Your task to perform on an android device: toggle improve location accuracy Image 0: 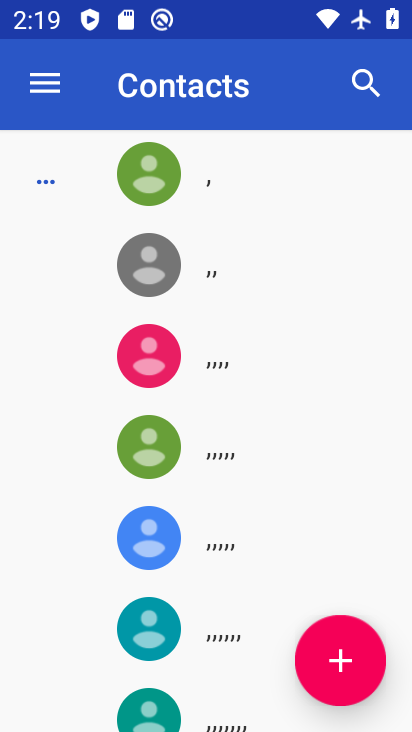
Step 0: press back button
Your task to perform on an android device: toggle improve location accuracy Image 1: 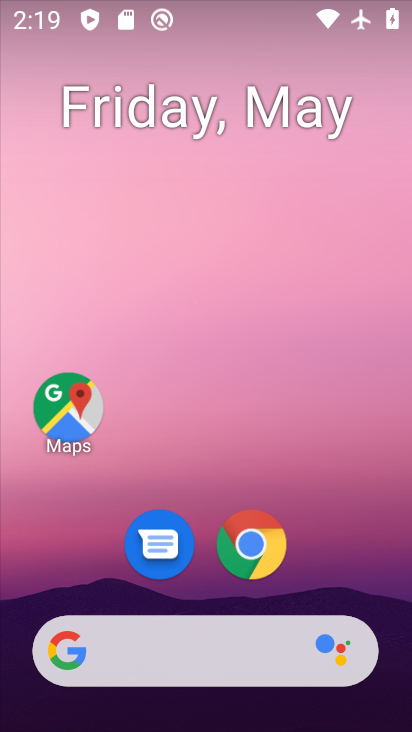
Step 1: drag from (212, 582) to (296, 60)
Your task to perform on an android device: toggle improve location accuracy Image 2: 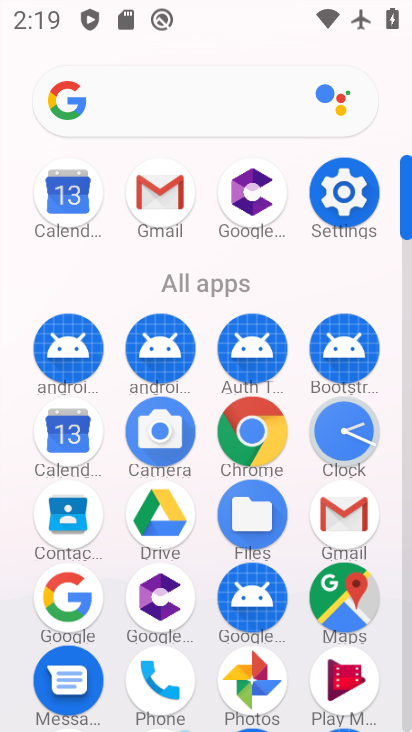
Step 2: click (351, 200)
Your task to perform on an android device: toggle improve location accuracy Image 3: 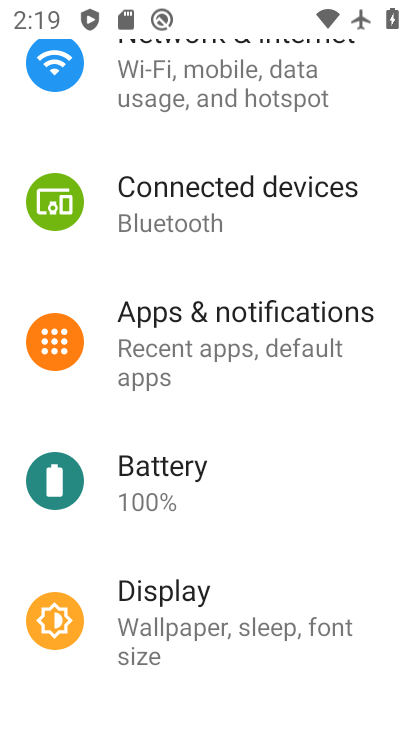
Step 3: drag from (238, 211) to (292, 145)
Your task to perform on an android device: toggle improve location accuracy Image 4: 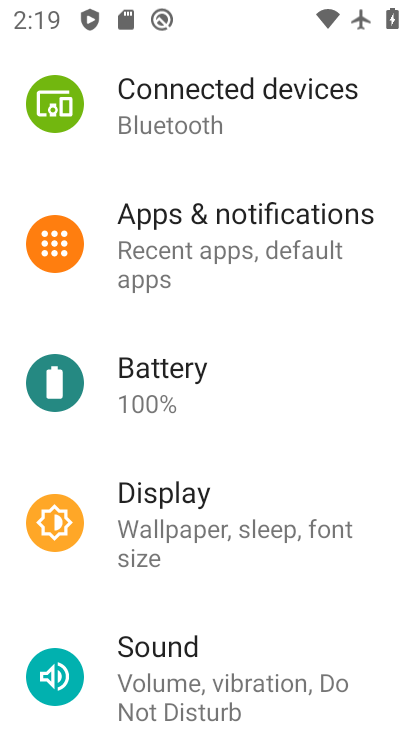
Step 4: drag from (173, 582) to (298, 108)
Your task to perform on an android device: toggle improve location accuracy Image 5: 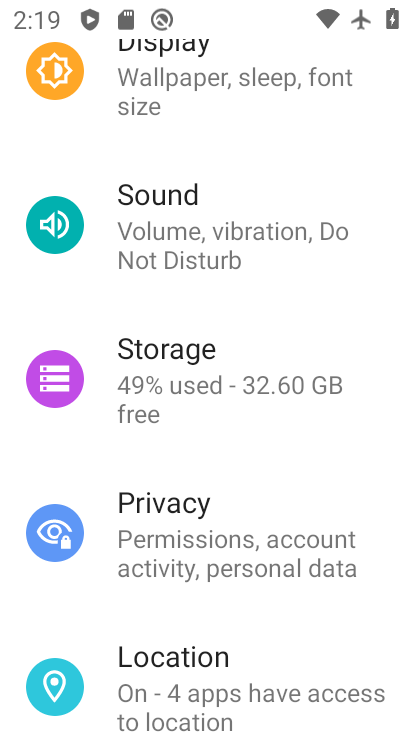
Step 5: click (167, 678)
Your task to perform on an android device: toggle improve location accuracy Image 6: 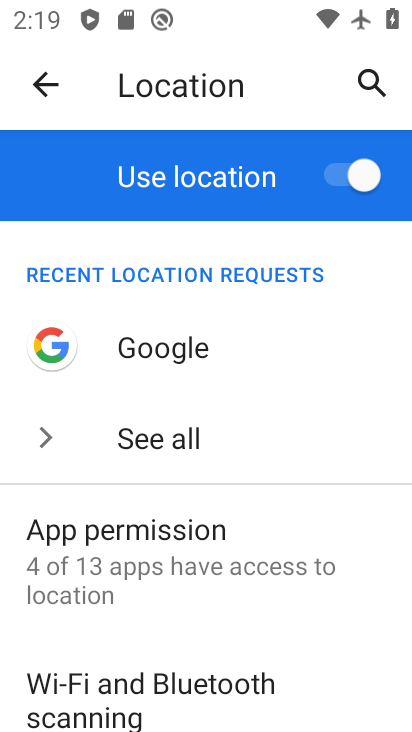
Step 6: drag from (159, 658) to (247, 283)
Your task to perform on an android device: toggle improve location accuracy Image 7: 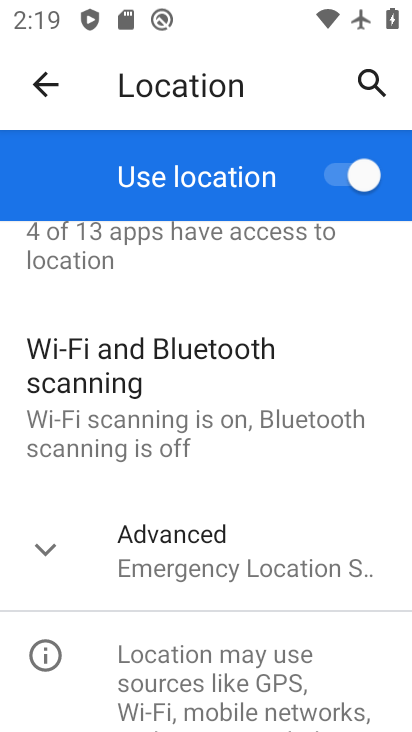
Step 7: click (176, 569)
Your task to perform on an android device: toggle improve location accuracy Image 8: 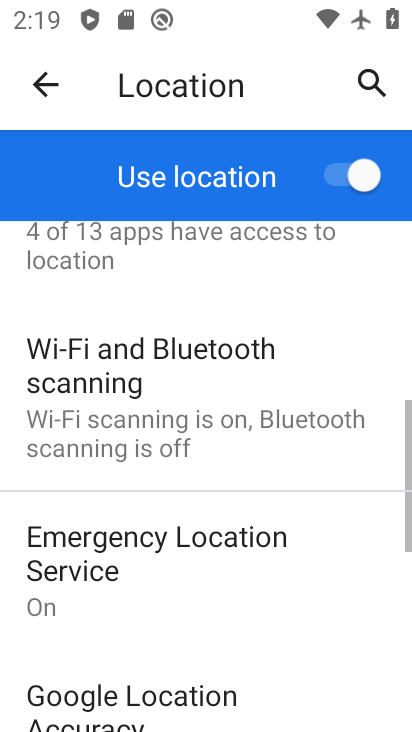
Step 8: drag from (156, 629) to (249, 233)
Your task to perform on an android device: toggle improve location accuracy Image 9: 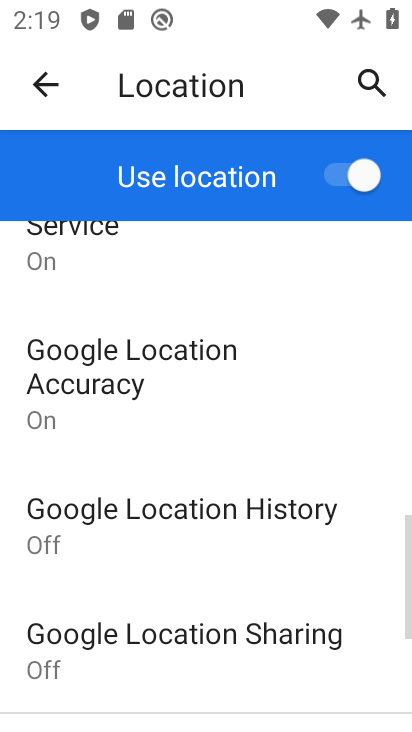
Step 9: click (133, 384)
Your task to perform on an android device: toggle improve location accuracy Image 10: 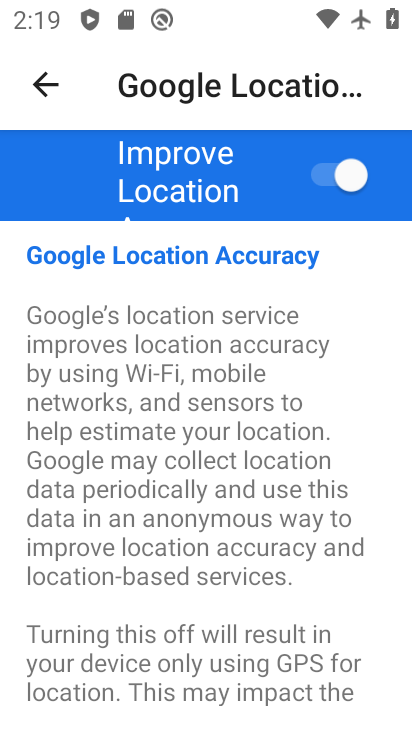
Step 10: click (334, 180)
Your task to perform on an android device: toggle improve location accuracy Image 11: 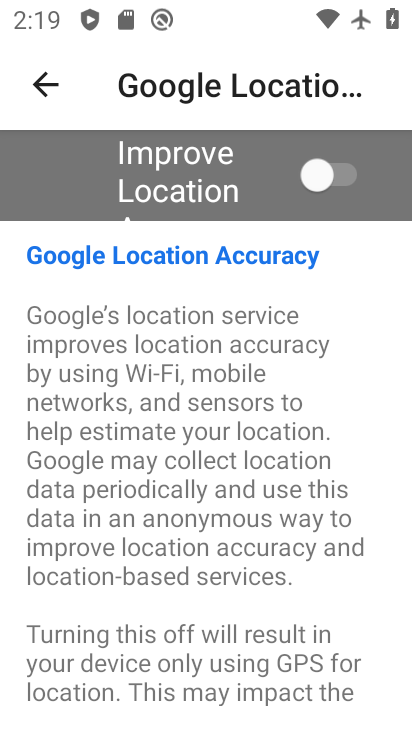
Step 11: task complete